Your task to perform on an android device: Go to accessibility settings Image 0: 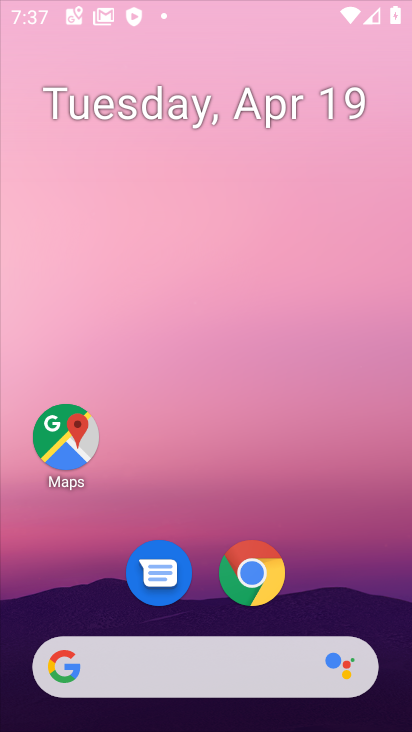
Step 0: click (258, 570)
Your task to perform on an android device: Go to accessibility settings Image 1: 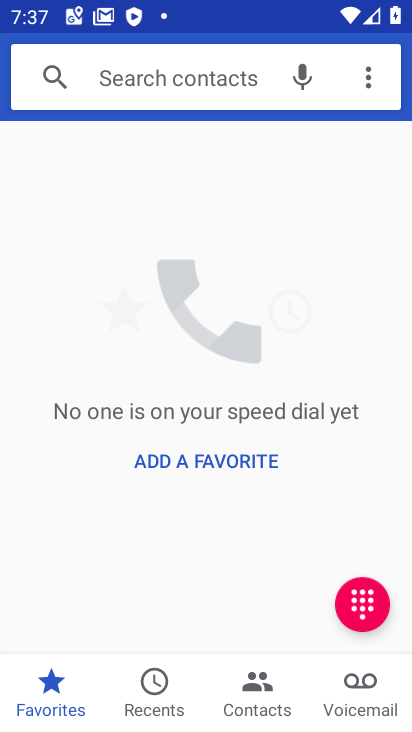
Step 1: press home button
Your task to perform on an android device: Go to accessibility settings Image 2: 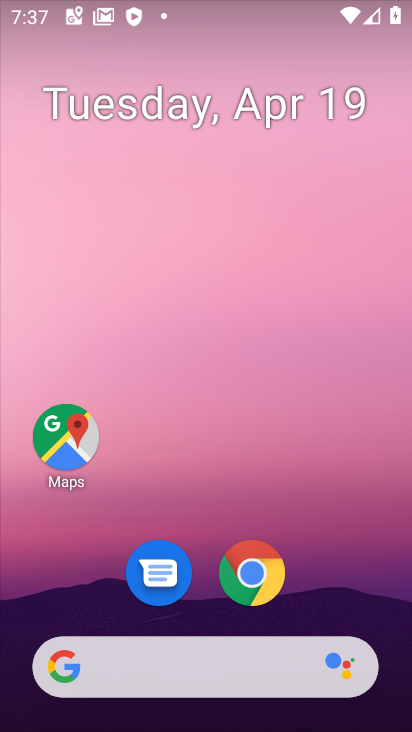
Step 2: drag from (347, 310) to (327, 105)
Your task to perform on an android device: Go to accessibility settings Image 3: 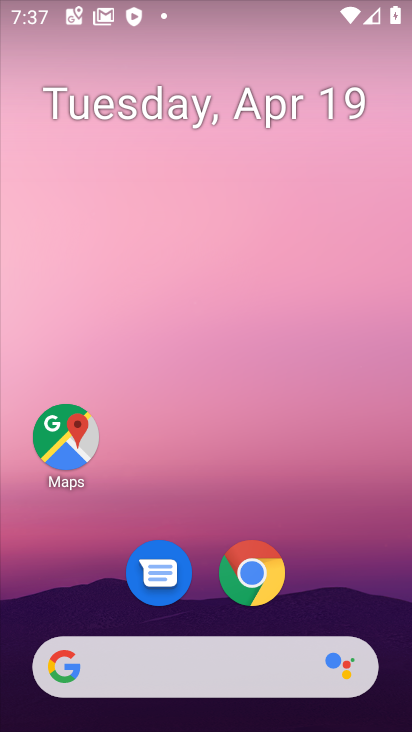
Step 3: drag from (375, 633) to (310, 142)
Your task to perform on an android device: Go to accessibility settings Image 4: 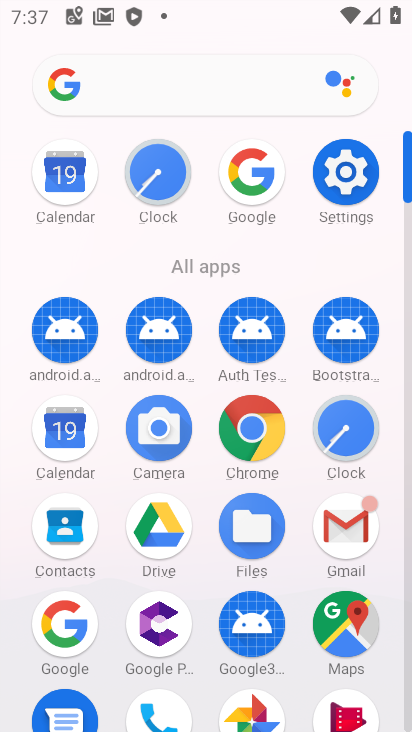
Step 4: click (335, 161)
Your task to perform on an android device: Go to accessibility settings Image 5: 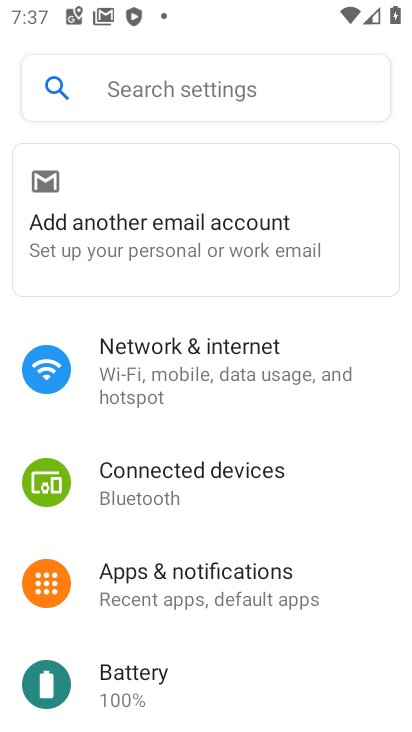
Step 5: drag from (338, 590) to (365, 163)
Your task to perform on an android device: Go to accessibility settings Image 6: 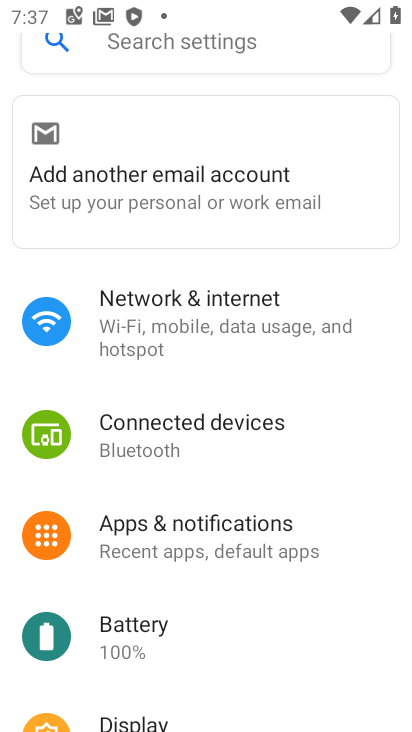
Step 6: drag from (344, 647) to (338, 271)
Your task to perform on an android device: Go to accessibility settings Image 7: 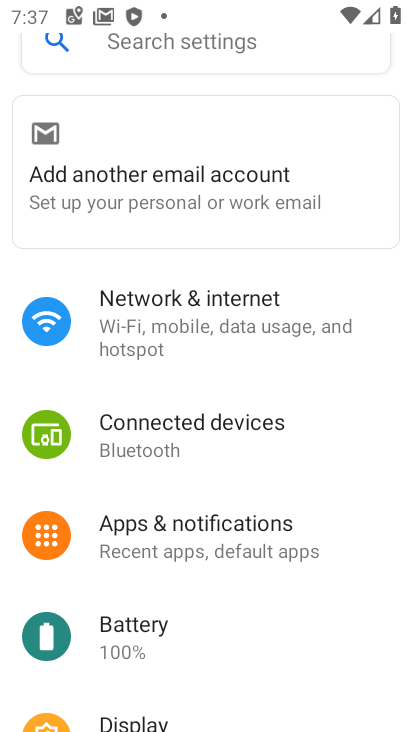
Step 7: drag from (358, 511) to (352, 190)
Your task to perform on an android device: Go to accessibility settings Image 8: 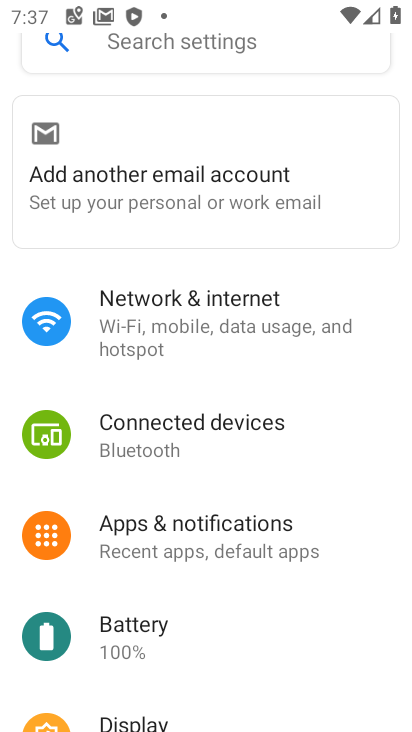
Step 8: drag from (393, 582) to (405, 159)
Your task to perform on an android device: Go to accessibility settings Image 9: 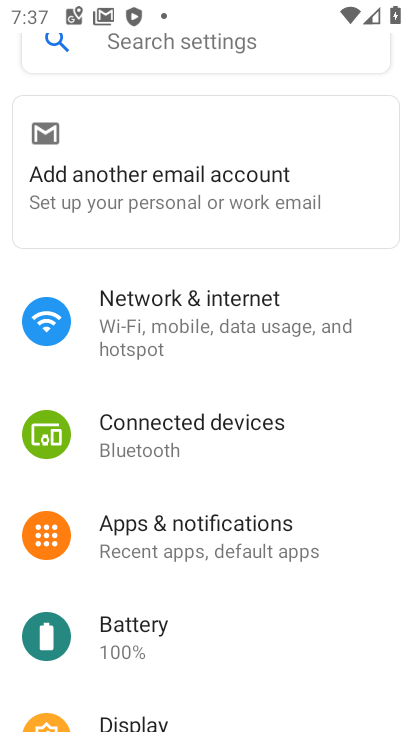
Step 9: drag from (354, 588) to (356, 203)
Your task to perform on an android device: Go to accessibility settings Image 10: 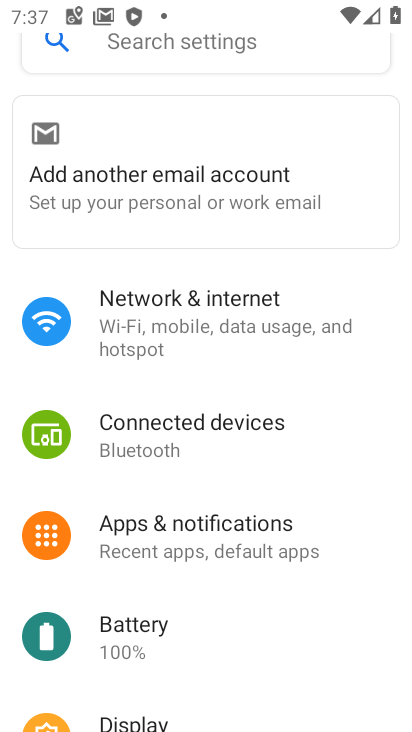
Step 10: drag from (374, 668) to (389, 220)
Your task to perform on an android device: Go to accessibility settings Image 11: 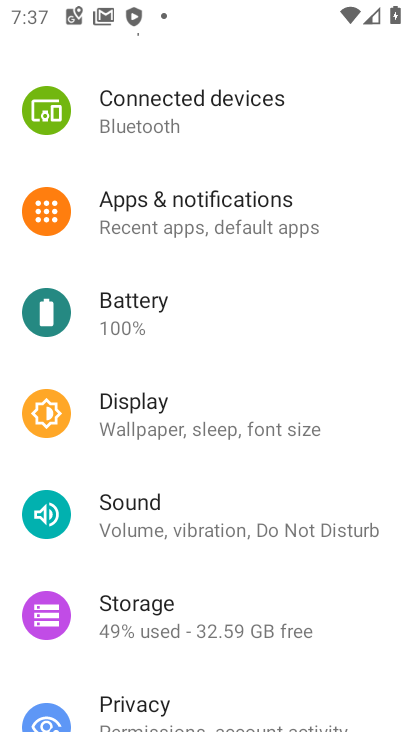
Step 11: drag from (355, 610) to (378, 161)
Your task to perform on an android device: Go to accessibility settings Image 12: 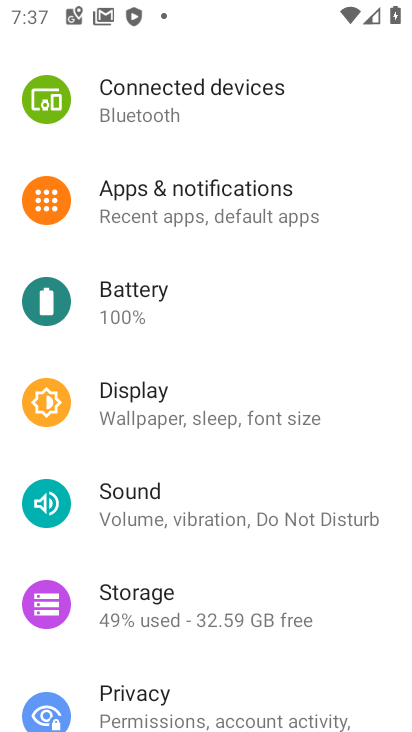
Step 12: click (372, 164)
Your task to perform on an android device: Go to accessibility settings Image 13: 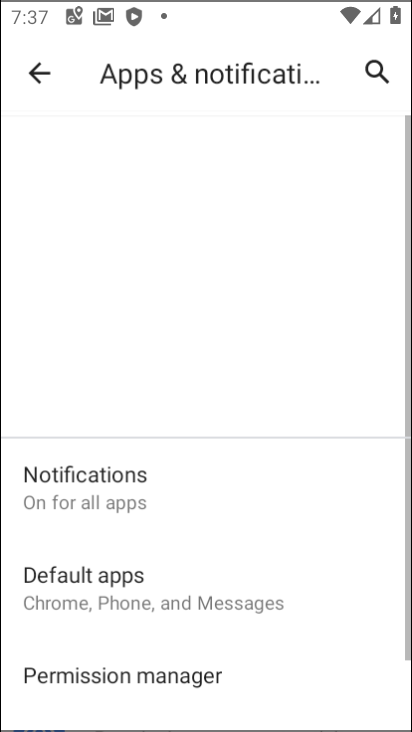
Step 13: drag from (364, 652) to (369, 138)
Your task to perform on an android device: Go to accessibility settings Image 14: 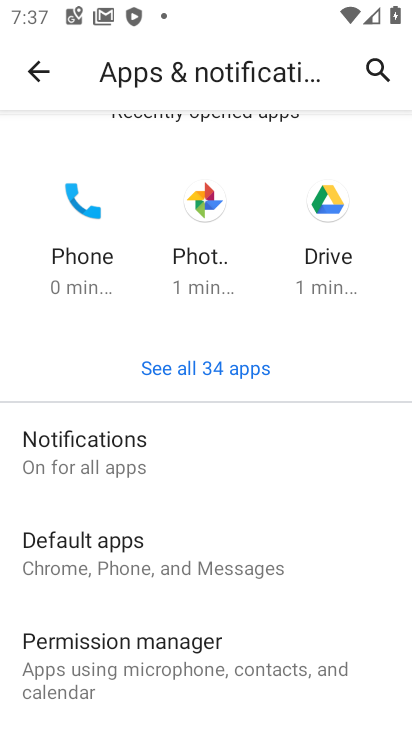
Step 14: press back button
Your task to perform on an android device: Go to accessibility settings Image 15: 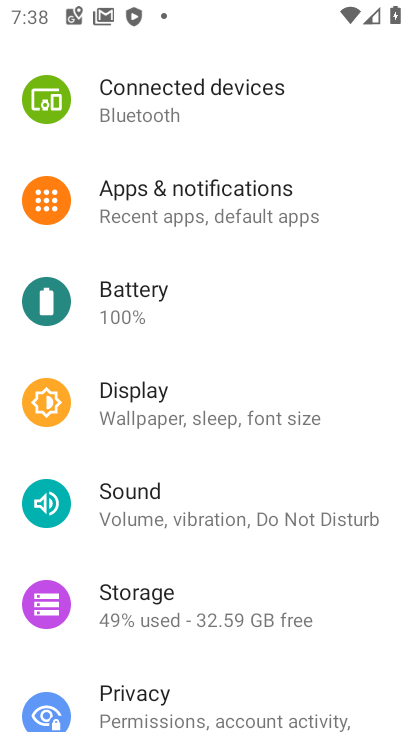
Step 15: drag from (379, 649) to (378, 208)
Your task to perform on an android device: Go to accessibility settings Image 16: 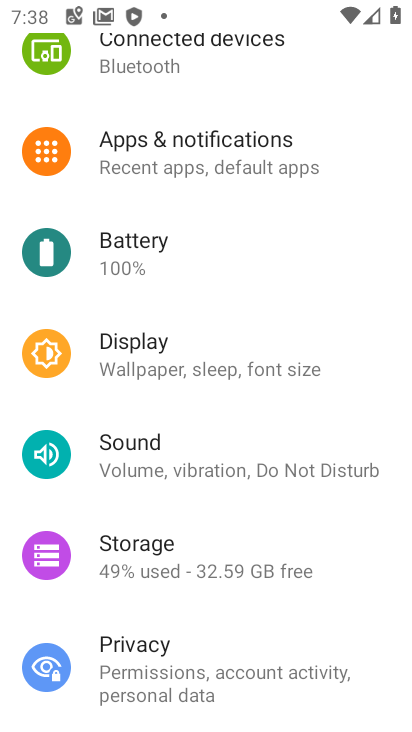
Step 16: drag from (381, 663) to (398, 178)
Your task to perform on an android device: Go to accessibility settings Image 17: 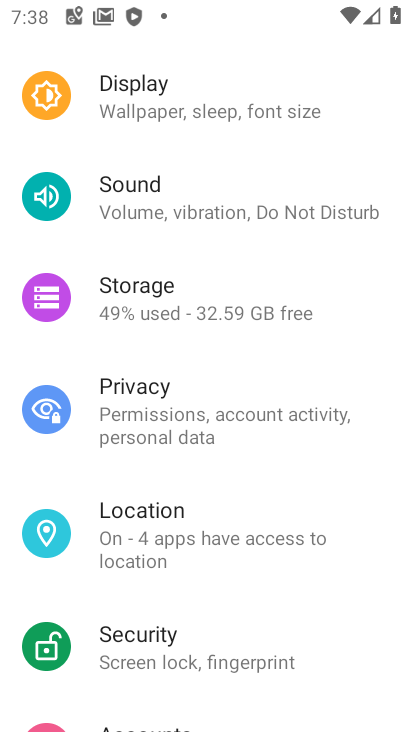
Step 17: drag from (403, 333) to (409, 109)
Your task to perform on an android device: Go to accessibility settings Image 18: 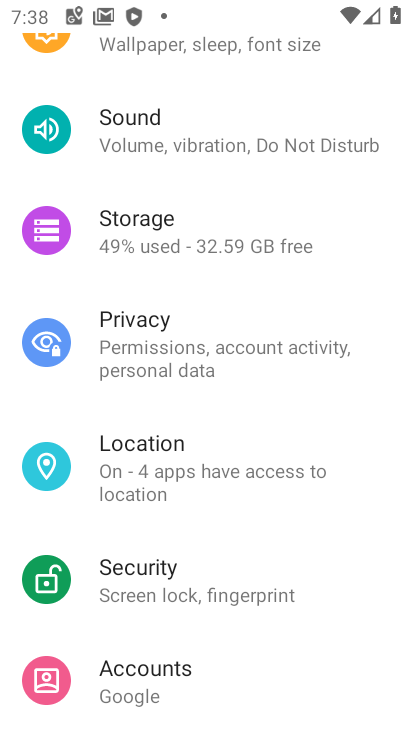
Step 18: drag from (404, 111) to (395, 353)
Your task to perform on an android device: Go to accessibility settings Image 19: 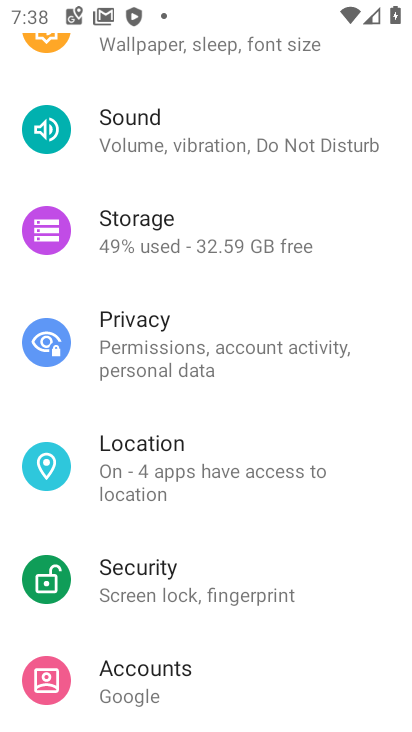
Step 19: drag from (402, 84) to (401, 218)
Your task to perform on an android device: Go to accessibility settings Image 20: 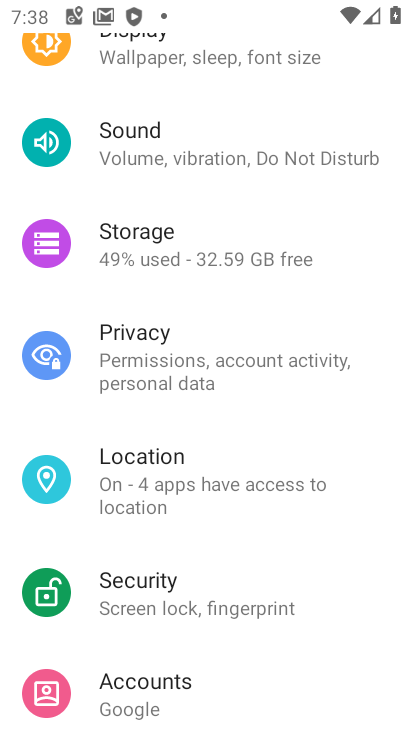
Step 20: drag from (407, 223) to (407, 281)
Your task to perform on an android device: Go to accessibility settings Image 21: 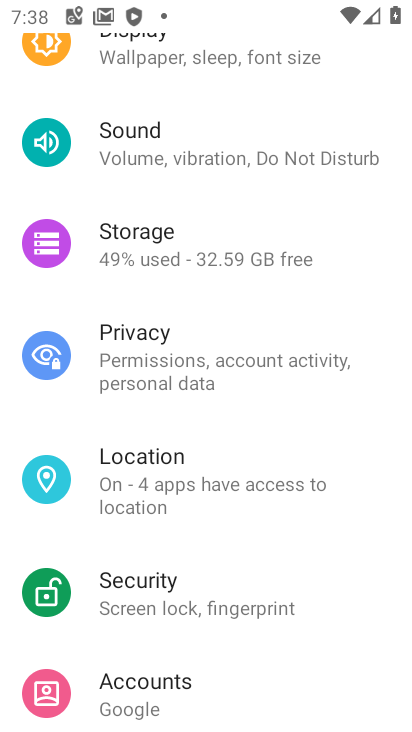
Step 21: drag from (366, 626) to (373, 236)
Your task to perform on an android device: Go to accessibility settings Image 22: 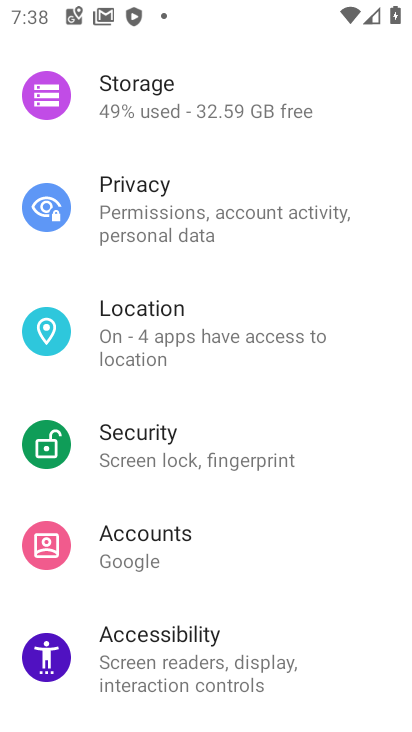
Step 22: click (137, 643)
Your task to perform on an android device: Go to accessibility settings Image 23: 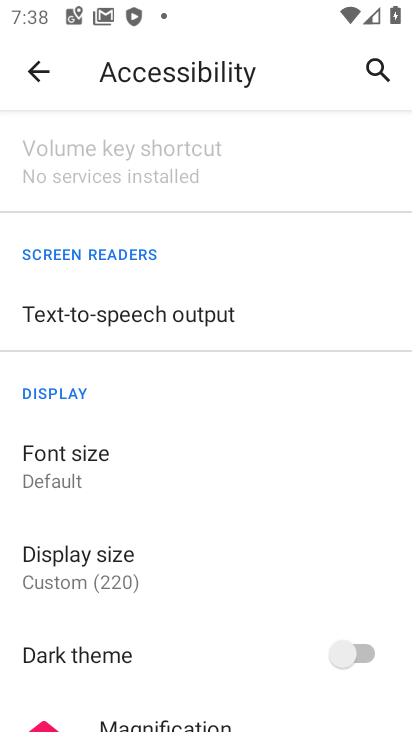
Step 23: task complete